Your task to perform on an android device: turn on wifi Image 0: 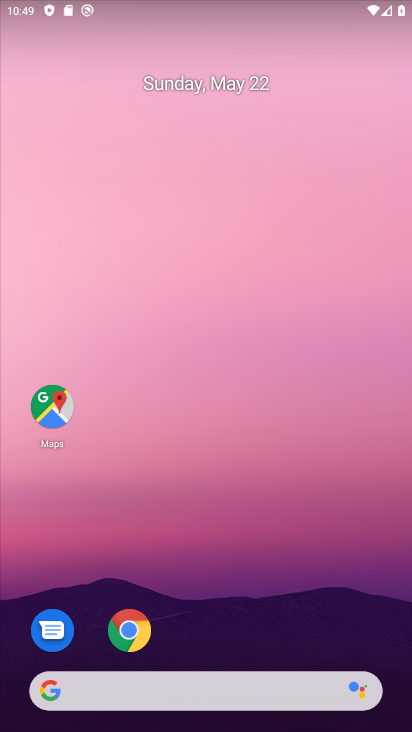
Step 0: drag from (367, 615) to (364, 158)
Your task to perform on an android device: turn on wifi Image 1: 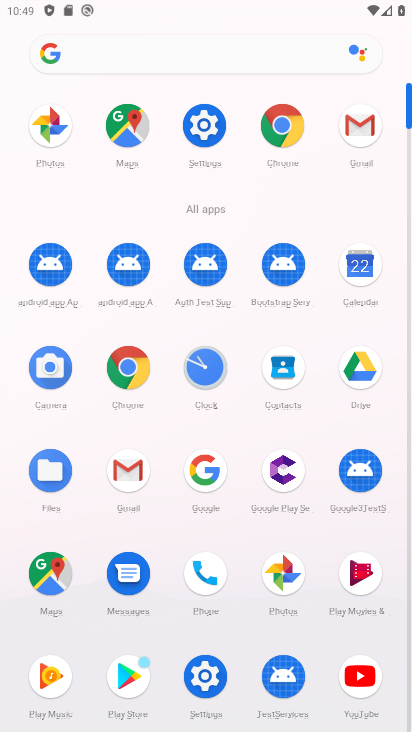
Step 1: click (207, 121)
Your task to perform on an android device: turn on wifi Image 2: 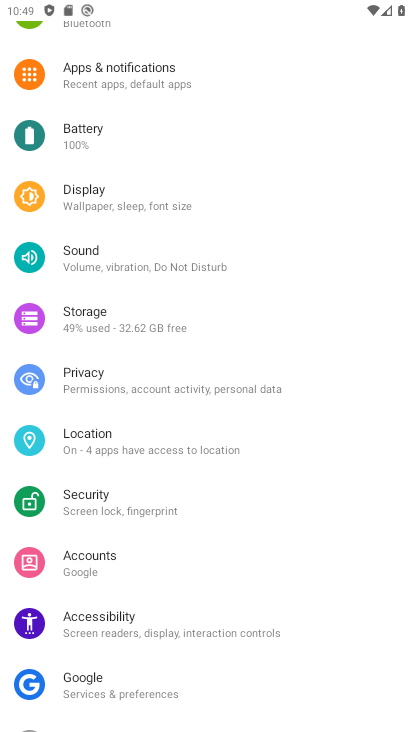
Step 2: drag from (325, 537) to (333, 318)
Your task to perform on an android device: turn on wifi Image 3: 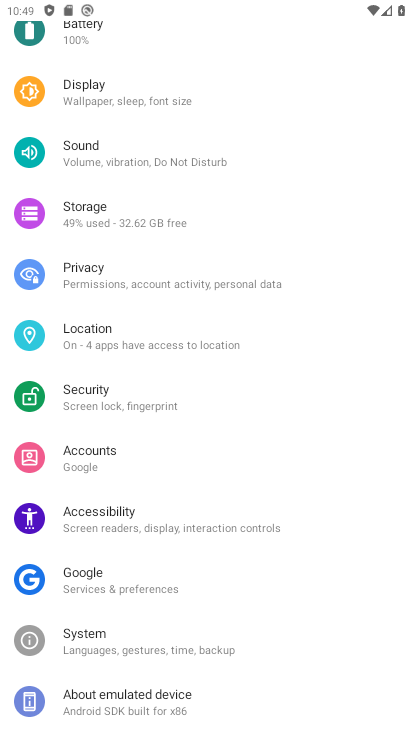
Step 3: drag from (330, 617) to (324, 344)
Your task to perform on an android device: turn on wifi Image 4: 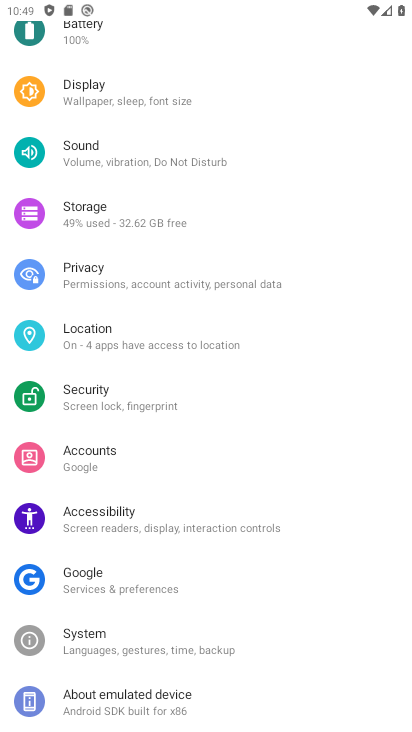
Step 4: drag from (311, 272) to (311, 454)
Your task to perform on an android device: turn on wifi Image 5: 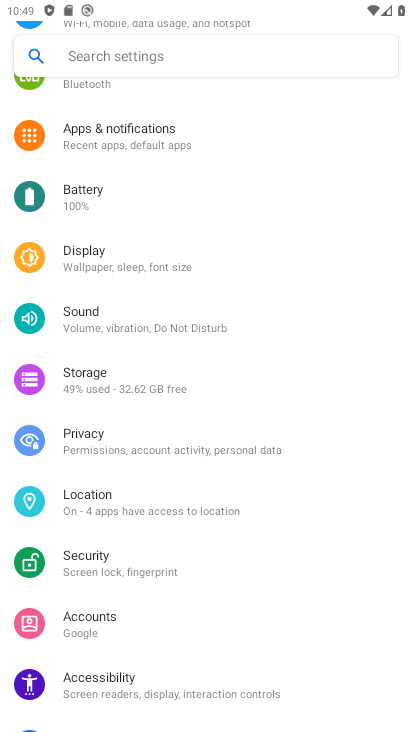
Step 5: drag from (311, 321) to (311, 466)
Your task to perform on an android device: turn on wifi Image 6: 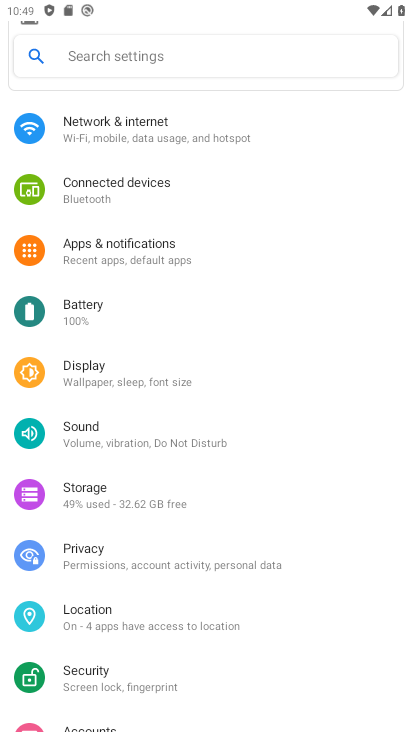
Step 6: drag from (322, 231) to (320, 509)
Your task to perform on an android device: turn on wifi Image 7: 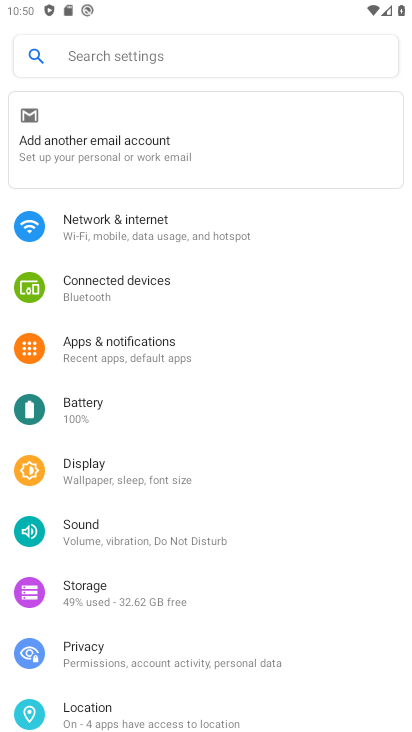
Step 7: drag from (342, 556) to (338, 293)
Your task to perform on an android device: turn on wifi Image 8: 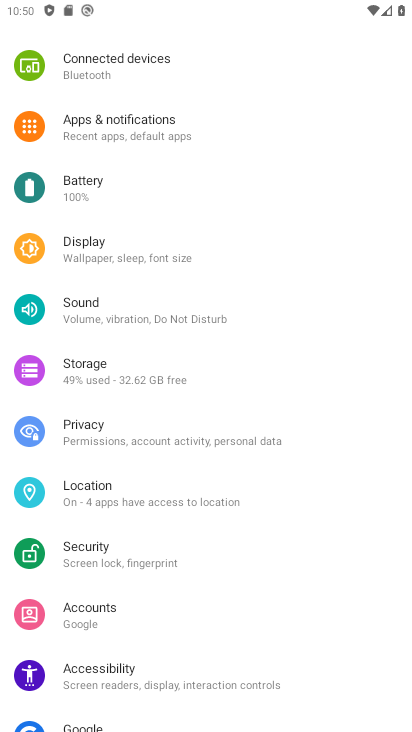
Step 8: drag from (307, 579) to (317, 320)
Your task to perform on an android device: turn on wifi Image 9: 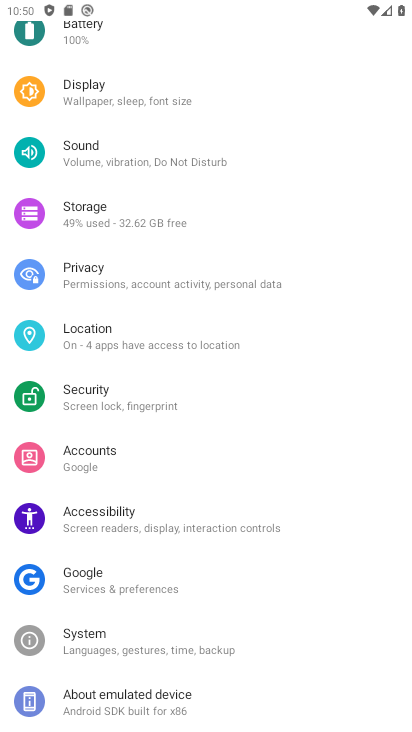
Step 9: drag from (320, 603) to (322, 376)
Your task to perform on an android device: turn on wifi Image 10: 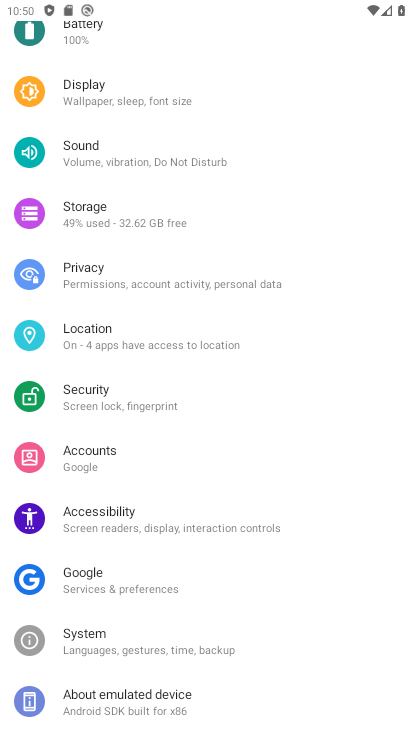
Step 10: drag from (315, 260) to (285, 527)
Your task to perform on an android device: turn on wifi Image 11: 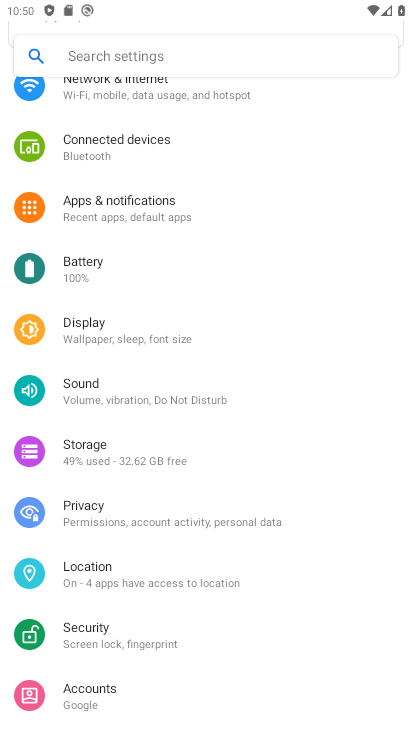
Step 11: drag from (307, 252) to (307, 474)
Your task to perform on an android device: turn on wifi Image 12: 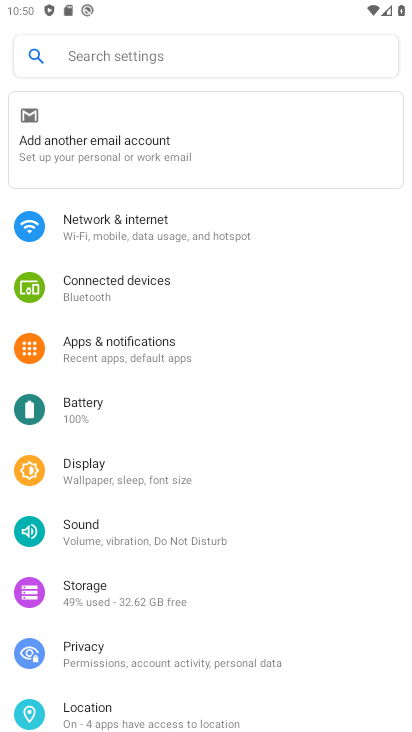
Step 12: click (149, 227)
Your task to perform on an android device: turn on wifi Image 13: 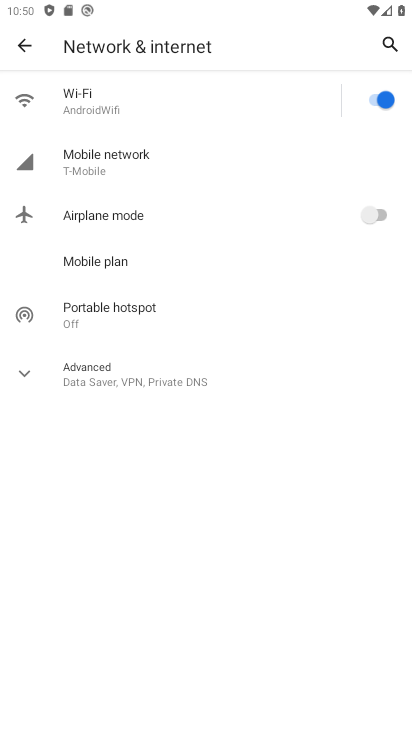
Step 13: task complete